Your task to perform on an android device: set the timer Image 0: 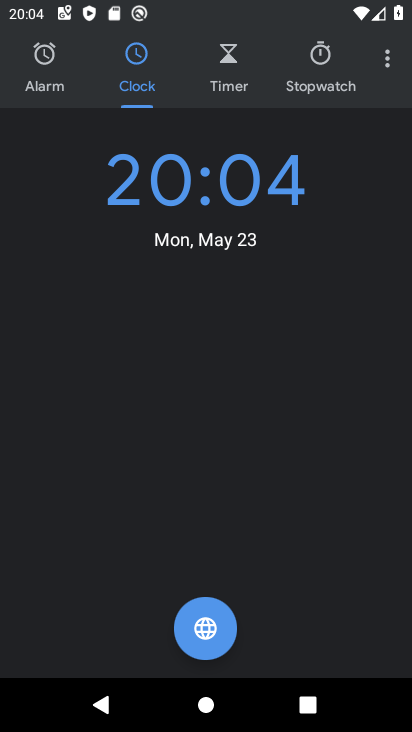
Step 0: click (234, 78)
Your task to perform on an android device: set the timer Image 1: 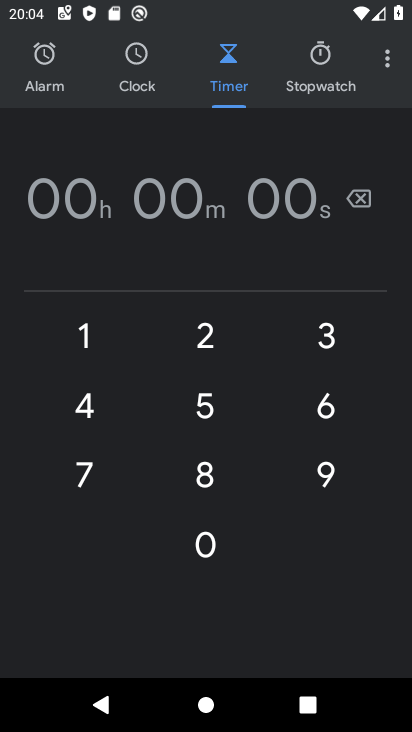
Step 1: click (212, 412)
Your task to perform on an android device: set the timer Image 2: 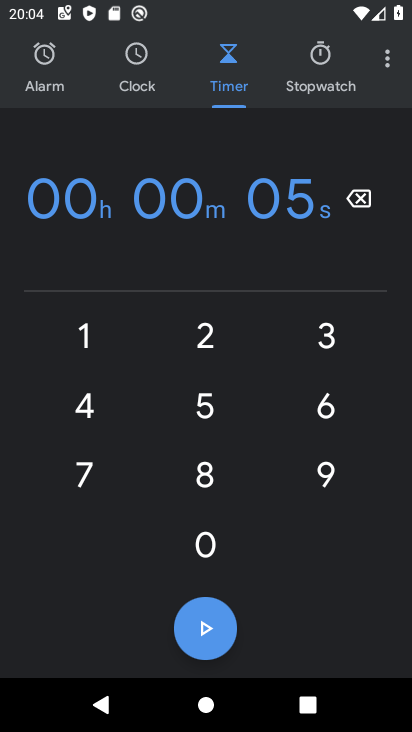
Step 2: task complete